Your task to perform on an android device: toggle pop-ups in chrome Image 0: 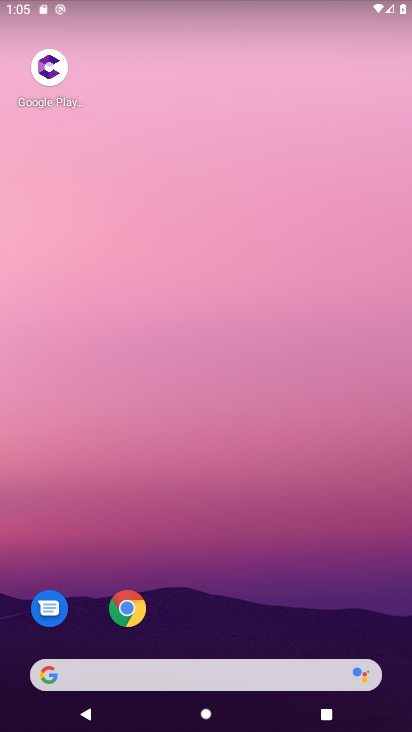
Step 0: drag from (370, 579) to (257, 44)
Your task to perform on an android device: toggle pop-ups in chrome Image 1: 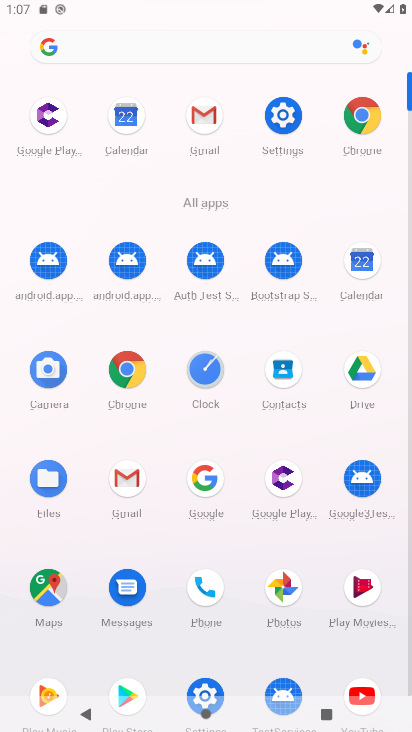
Step 1: click (363, 116)
Your task to perform on an android device: toggle pop-ups in chrome Image 2: 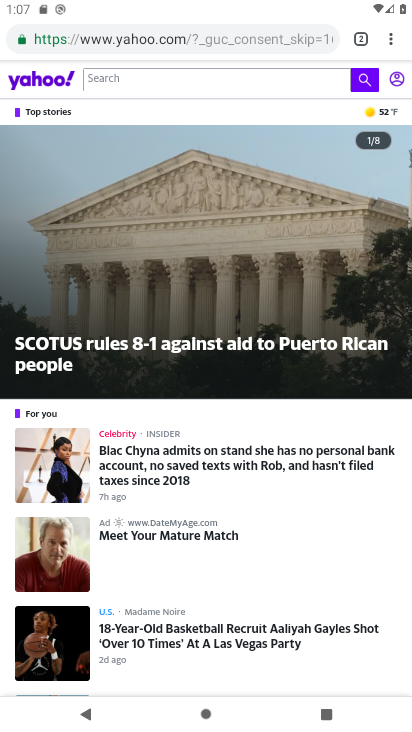
Step 2: drag from (389, 41) to (274, 509)
Your task to perform on an android device: toggle pop-ups in chrome Image 3: 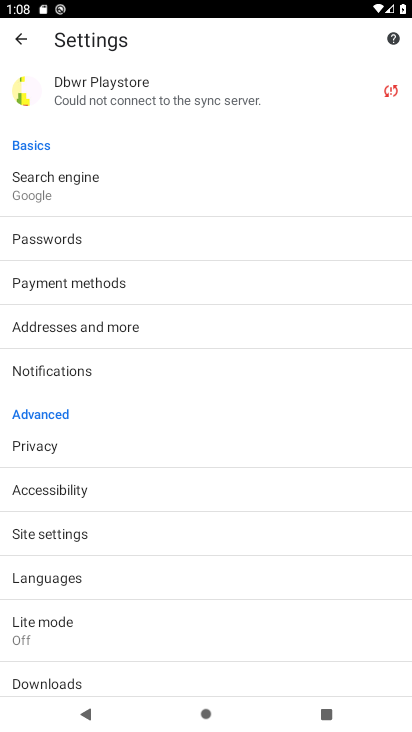
Step 3: click (105, 543)
Your task to perform on an android device: toggle pop-ups in chrome Image 4: 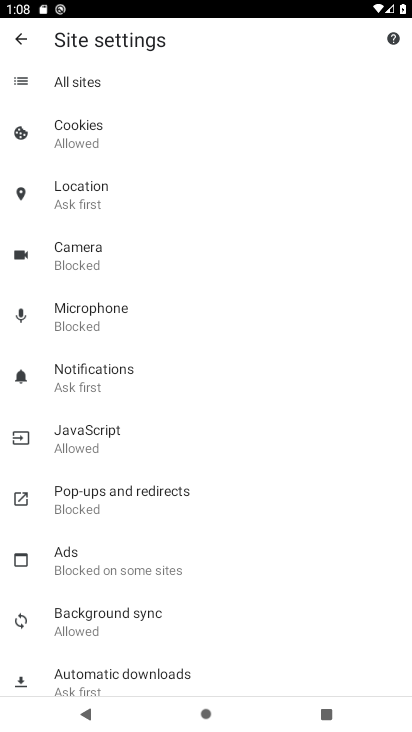
Step 4: click (88, 139)
Your task to perform on an android device: toggle pop-ups in chrome Image 5: 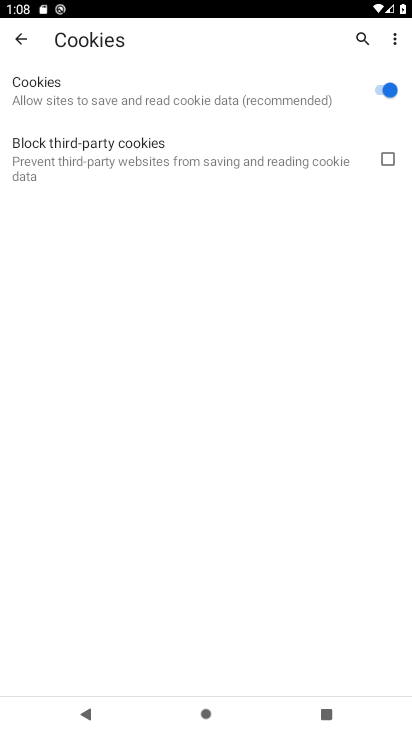
Step 5: click (387, 90)
Your task to perform on an android device: toggle pop-ups in chrome Image 6: 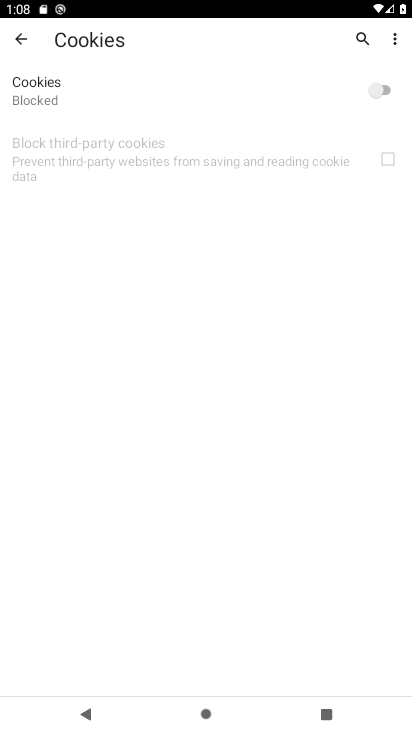
Step 6: task complete